Your task to perform on an android device: Open accessibility settings Image 0: 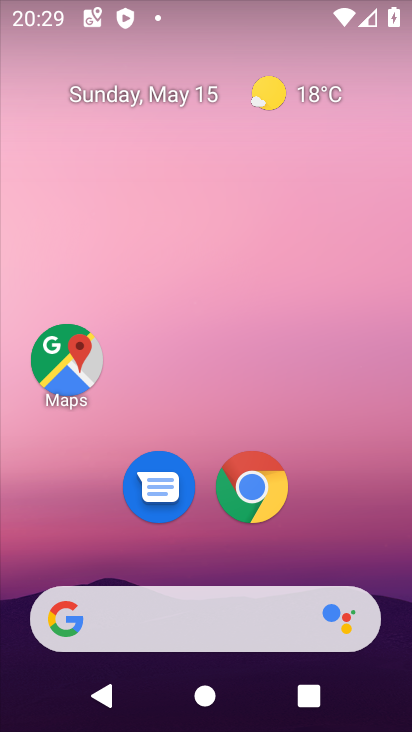
Step 0: click (340, 216)
Your task to perform on an android device: Open accessibility settings Image 1: 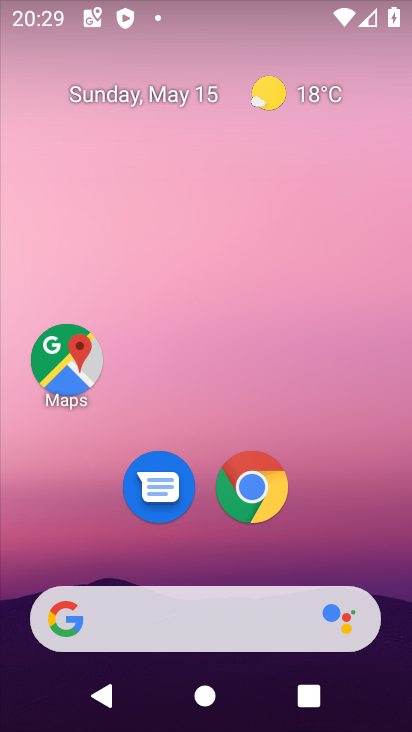
Step 1: drag from (387, 597) to (378, 294)
Your task to perform on an android device: Open accessibility settings Image 2: 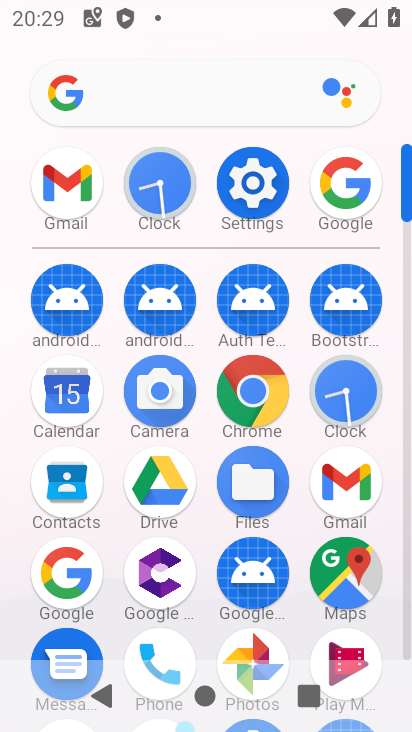
Step 2: click (261, 180)
Your task to perform on an android device: Open accessibility settings Image 3: 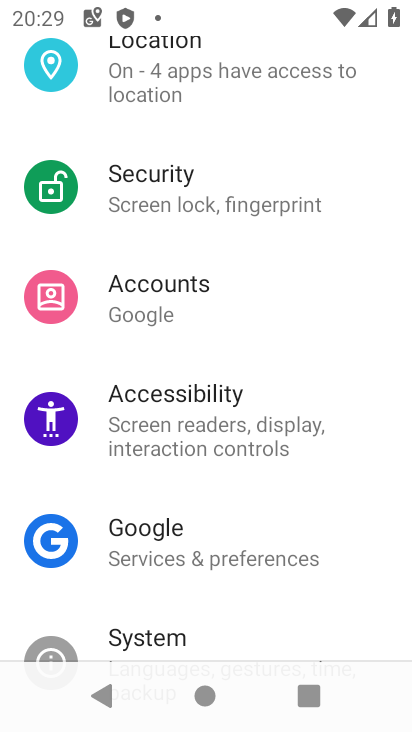
Step 3: click (174, 418)
Your task to perform on an android device: Open accessibility settings Image 4: 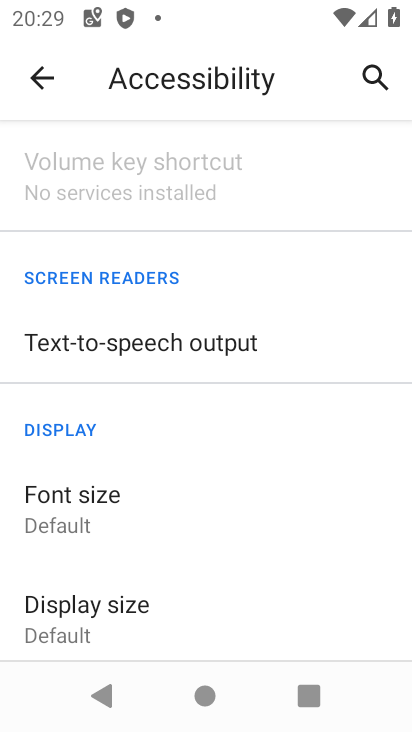
Step 4: task complete